Your task to perform on an android device: add a contact in the contacts app Image 0: 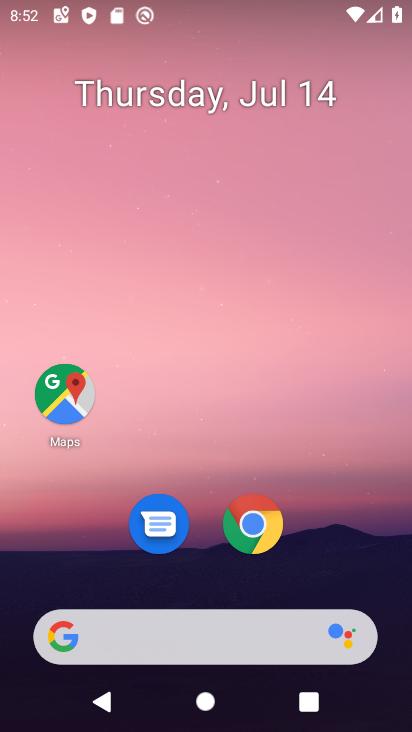
Step 0: drag from (345, 488) to (296, 0)
Your task to perform on an android device: add a contact in the contacts app Image 1: 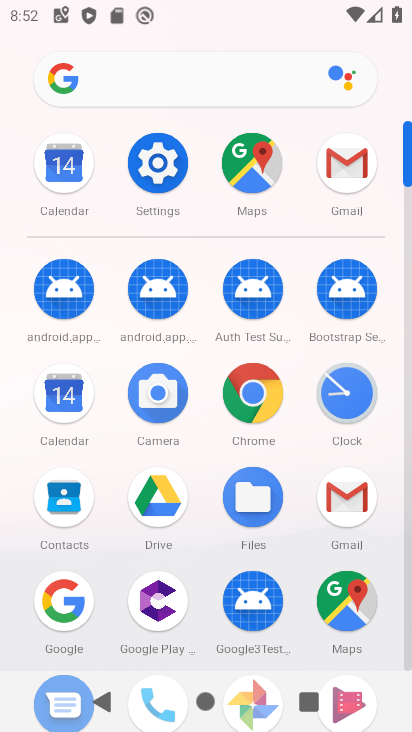
Step 1: click (68, 500)
Your task to perform on an android device: add a contact in the contacts app Image 2: 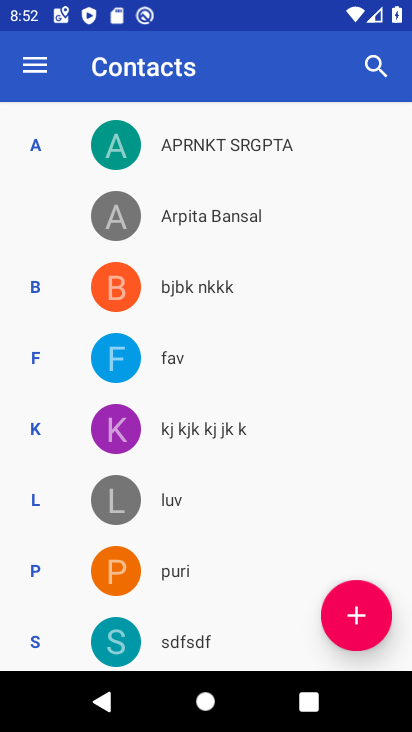
Step 2: drag from (246, 405) to (267, 176)
Your task to perform on an android device: add a contact in the contacts app Image 3: 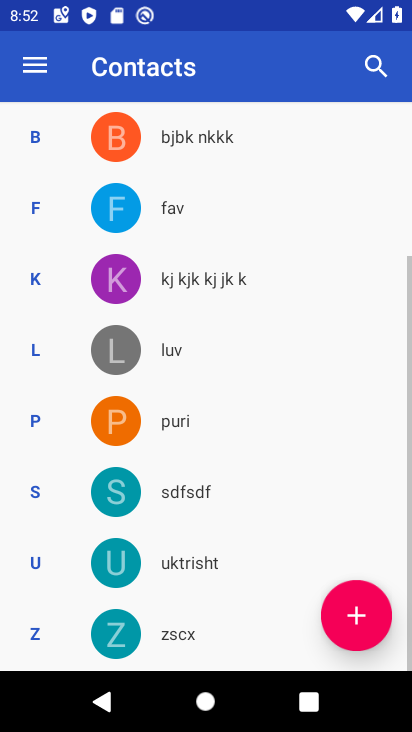
Step 3: drag from (239, 478) to (237, 236)
Your task to perform on an android device: add a contact in the contacts app Image 4: 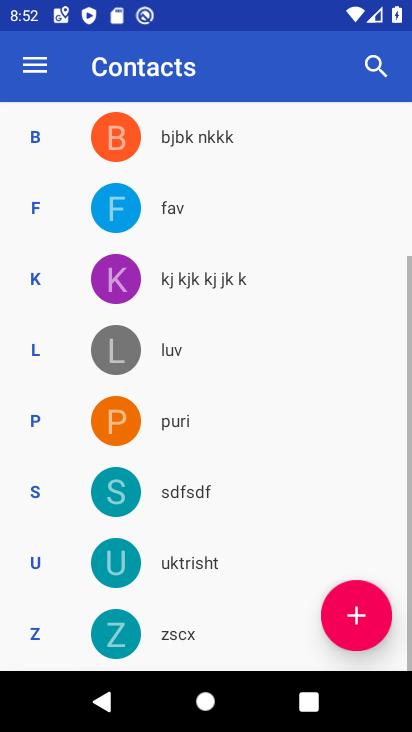
Step 4: drag from (234, 193) to (247, 515)
Your task to perform on an android device: add a contact in the contacts app Image 5: 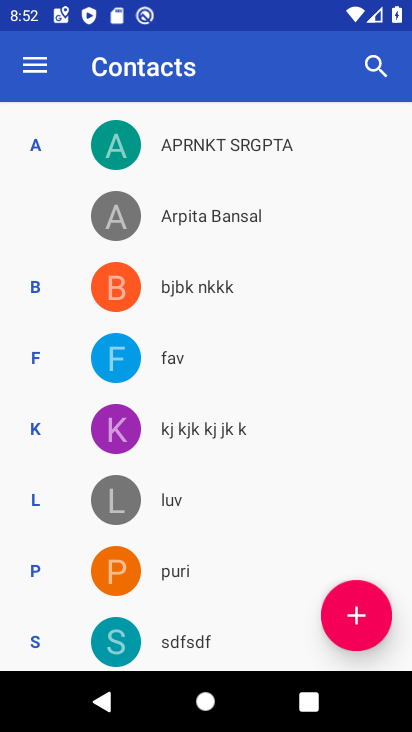
Step 5: click (349, 615)
Your task to perform on an android device: add a contact in the contacts app Image 6: 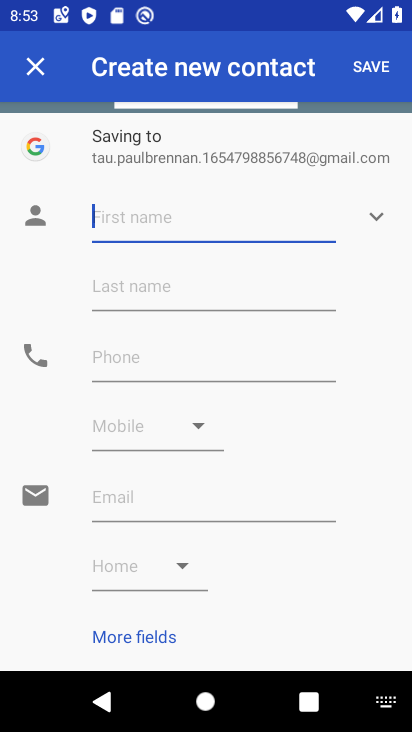
Step 6: type "Vidyottama"
Your task to perform on an android device: add a contact in the contacts app Image 7: 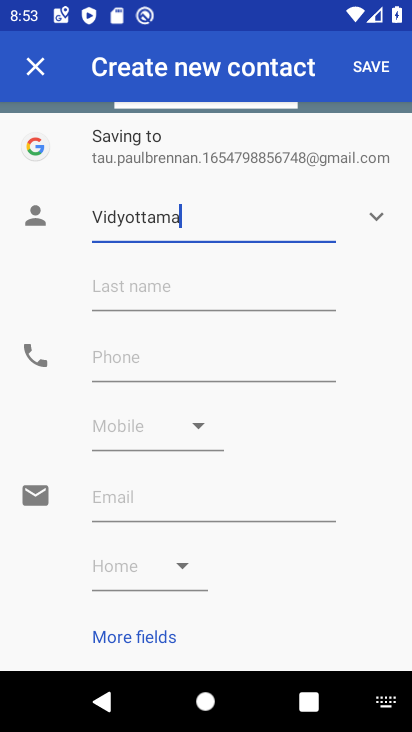
Step 7: click (217, 368)
Your task to perform on an android device: add a contact in the contacts app Image 8: 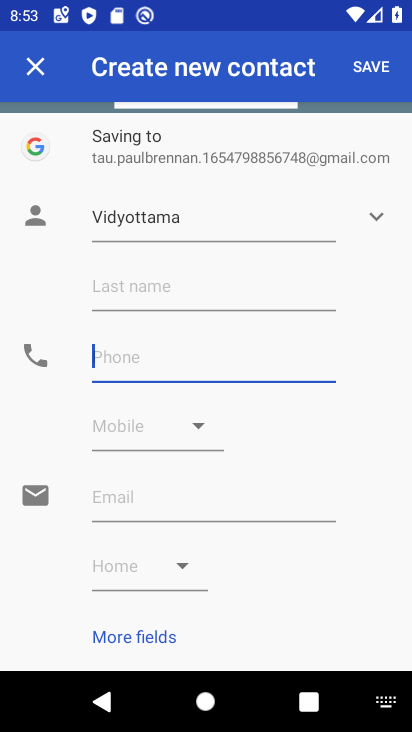
Step 8: type "01122344556677"
Your task to perform on an android device: add a contact in the contacts app Image 9: 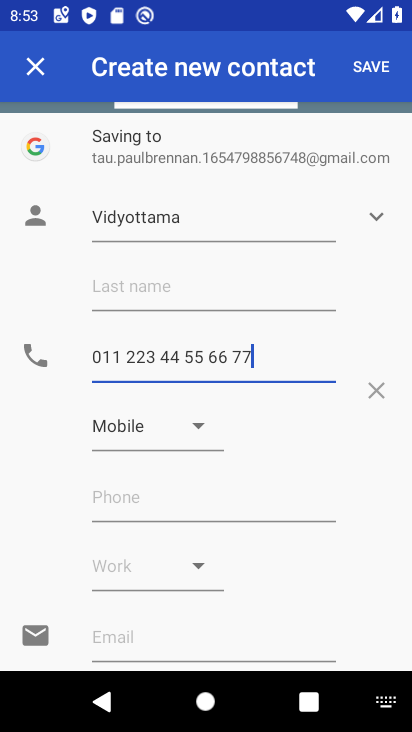
Step 9: click (377, 71)
Your task to perform on an android device: add a contact in the contacts app Image 10: 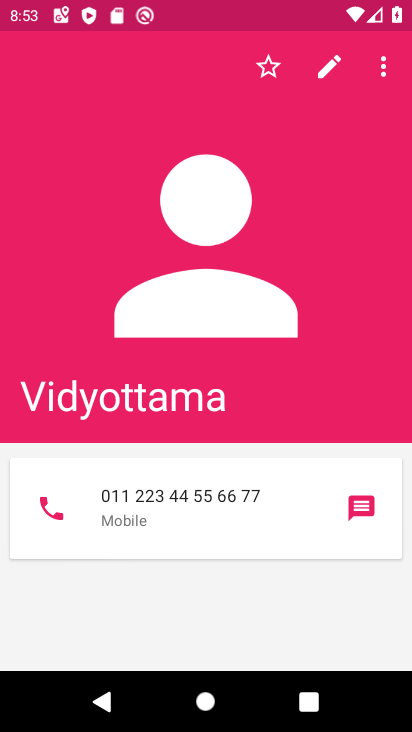
Step 10: task complete